Your task to perform on an android device: Open Google Chrome and open the bookmarks view Image 0: 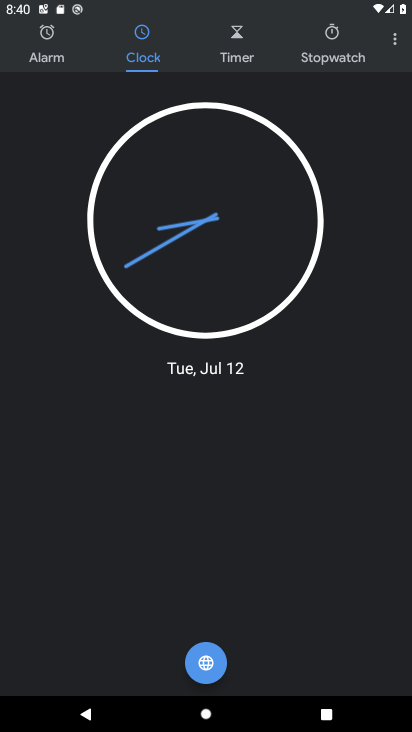
Step 0: press home button
Your task to perform on an android device: Open Google Chrome and open the bookmarks view Image 1: 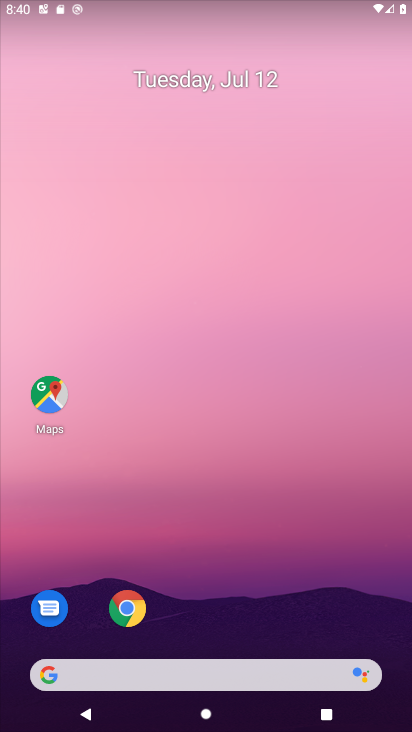
Step 1: click (129, 609)
Your task to perform on an android device: Open Google Chrome and open the bookmarks view Image 2: 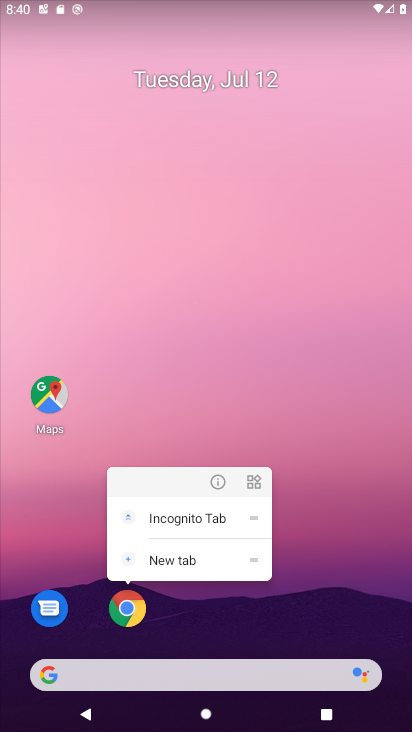
Step 2: click (129, 613)
Your task to perform on an android device: Open Google Chrome and open the bookmarks view Image 3: 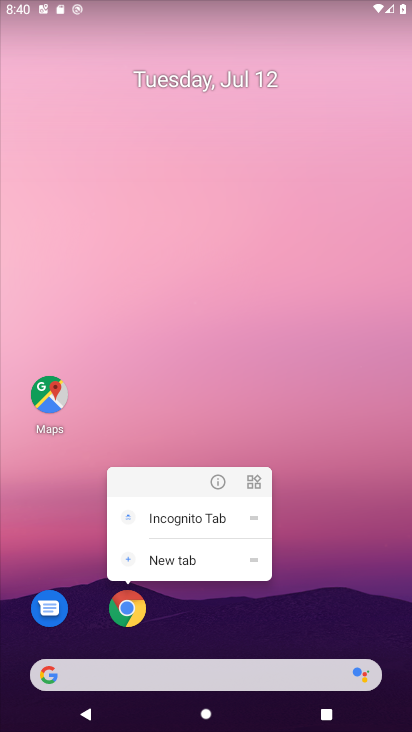
Step 3: click (129, 613)
Your task to perform on an android device: Open Google Chrome and open the bookmarks view Image 4: 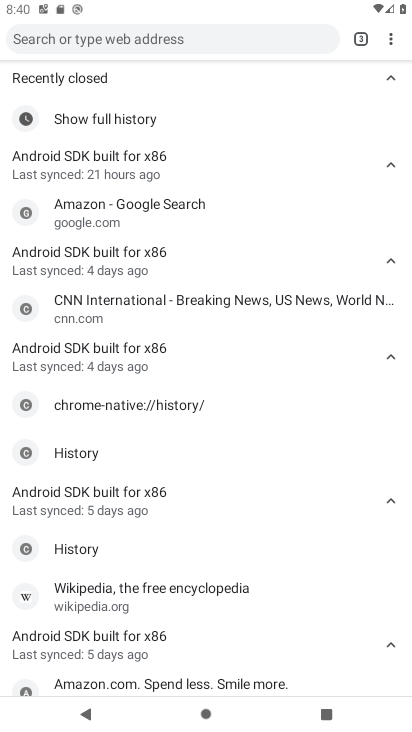
Step 4: task complete